Your task to perform on an android device: search for starred emails in the gmail app Image 0: 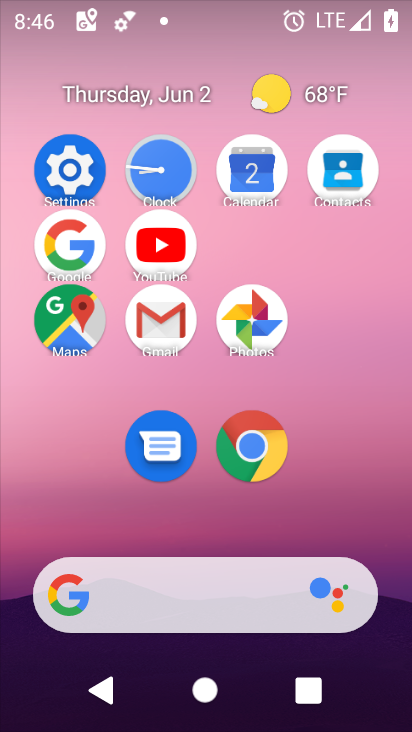
Step 0: click (174, 332)
Your task to perform on an android device: search for starred emails in the gmail app Image 1: 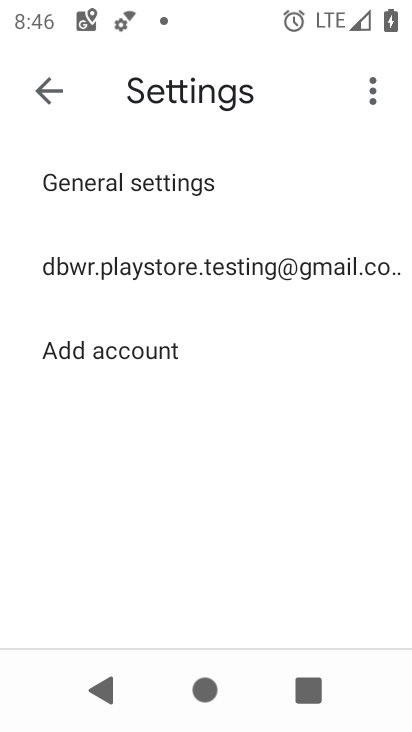
Step 1: click (42, 100)
Your task to perform on an android device: search for starred emails in the gmail app Image 2: 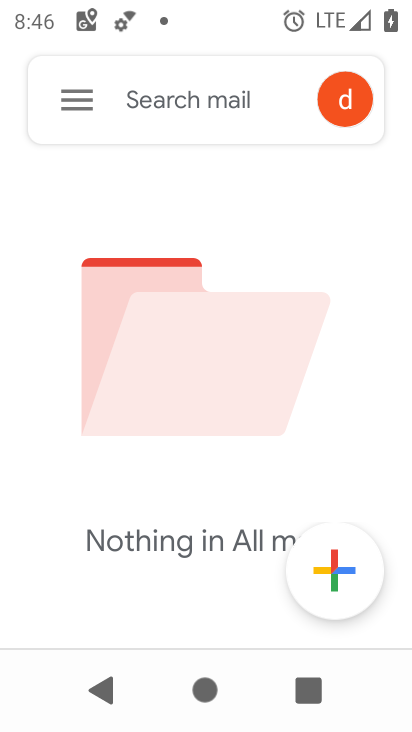
Step 2: click (42, 100)
Your task to perform on an android device: search for starred emails in the gmail app Image 3: 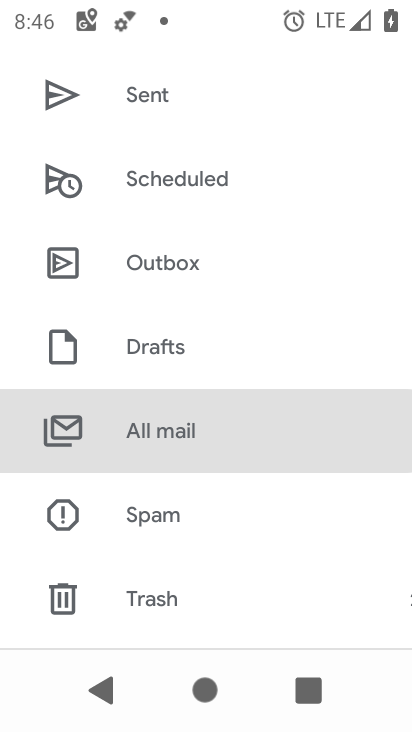
Step 3: drag from (251, 205) to (252, 542)
Your task to perform on an android device: search for starred emails in the gmail app Image 4: 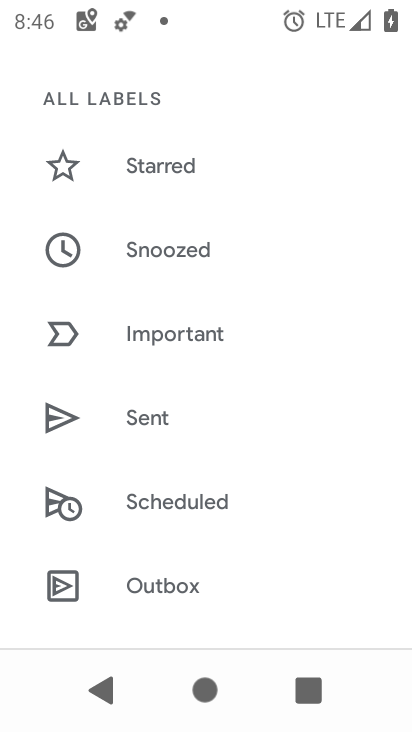
Step 4: click (162, 21)
Your task to perform on an android device: search for starred emails in the gmail app Image 5: 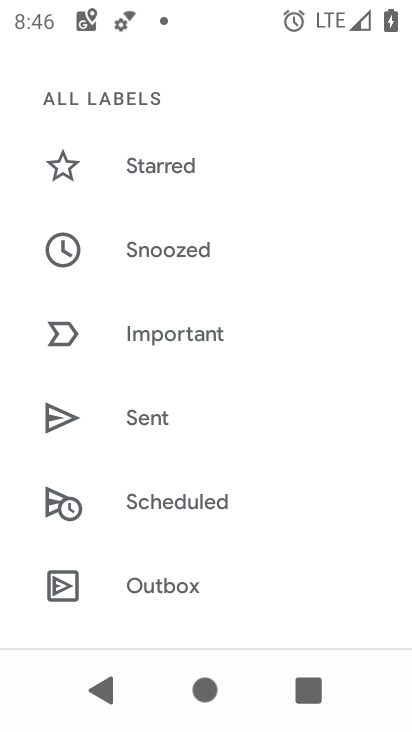
Step 5: click (130, 176)
Your task to perform on an android device: search for starred emails in the gmail app Image 6: 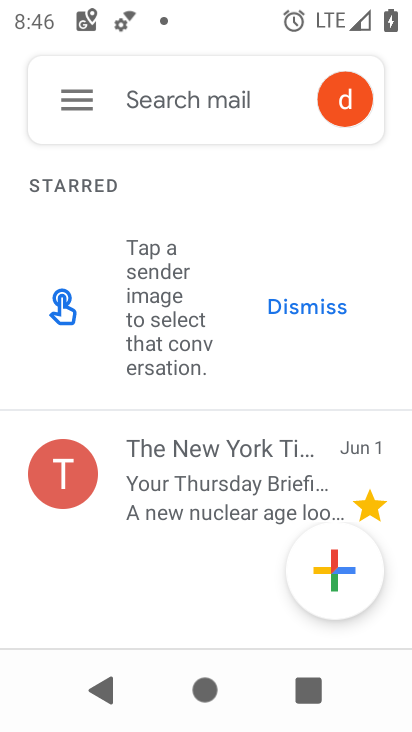
Step 6: task complete